Your task to perform on an android device: turn off wifi Image 0: 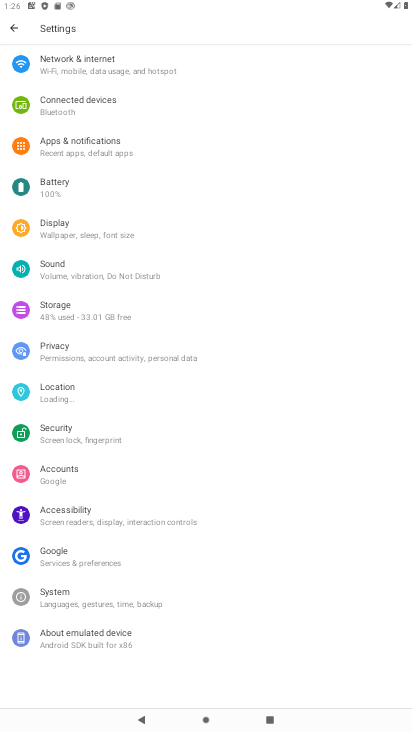
Step 0: press home button
Your task to perform on an android device: turn off wifi Image 1: 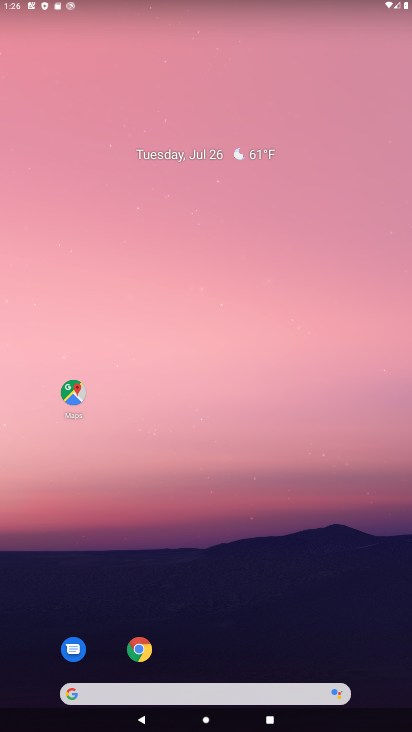
Step 1: drag from (183, 581) to (183, 223)
Your task to perform on an android device: turn off wifi Image 2: 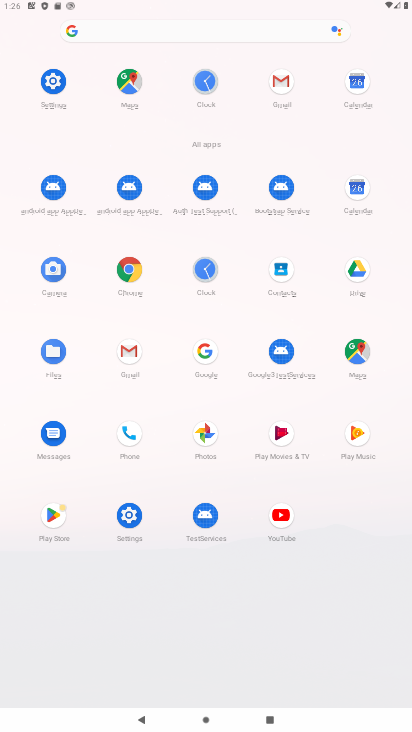
Step 2: click (52, 84)
Your task to perform on an android device: turn off wifi Image 3: 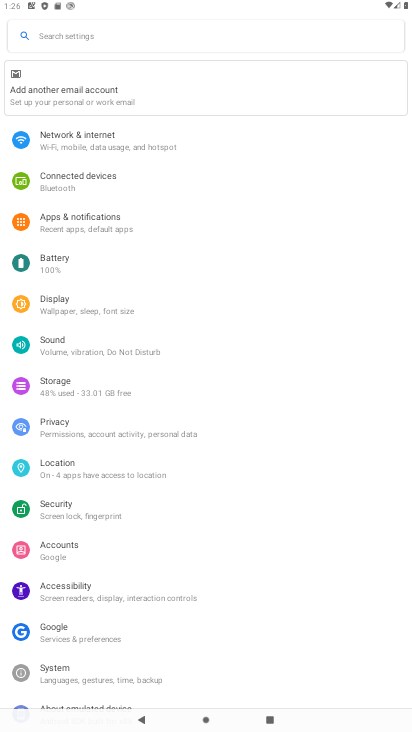
Step 3: click (73, 145)
Your task to perform on an android device: turn off wifi Image 4: 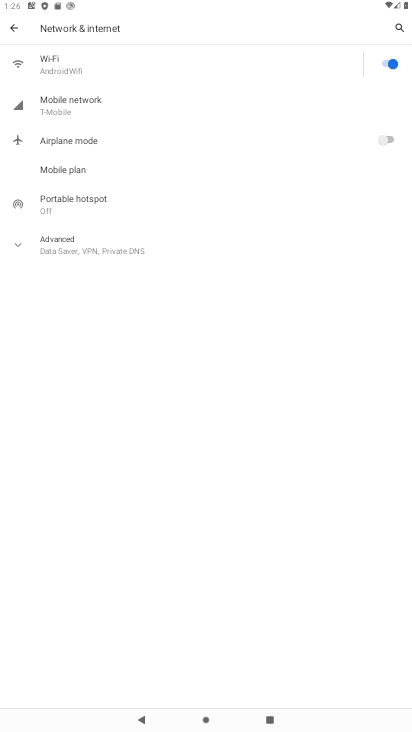
Step 4: click (384, 63)
Your task to perform on an android device: turn off wifi Image 5: 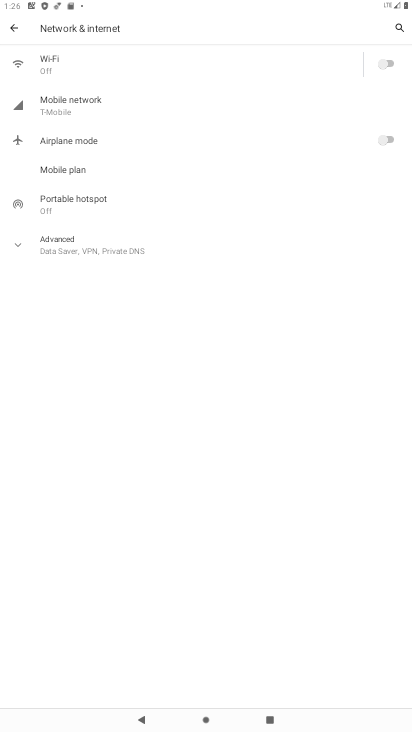
Step 5: task complete